Your task to perform on an android device: Open the web browser Image 0: 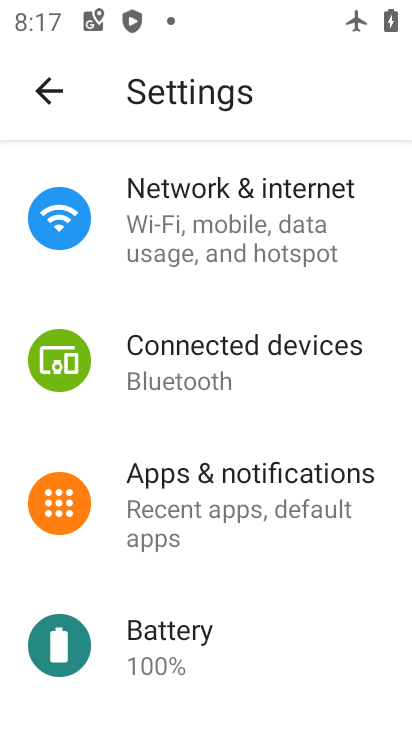
Step 0: press home button
Your task to perform on an android device: Open the web browser Image 1: 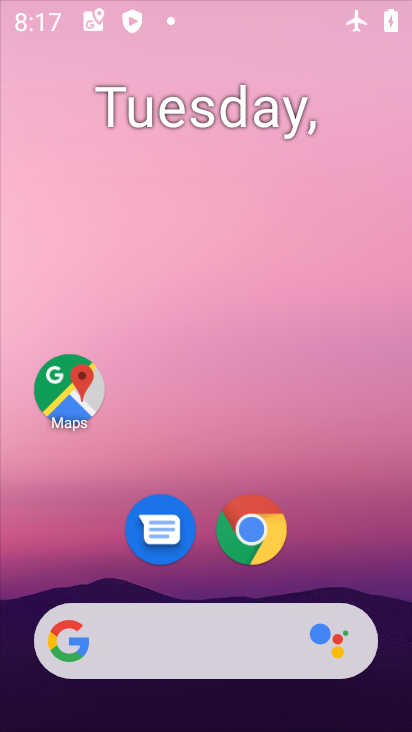
Step 1: drag from (180, 705) to (260, 0)
Your task to perform on an android device: Open the web browser Image 2: 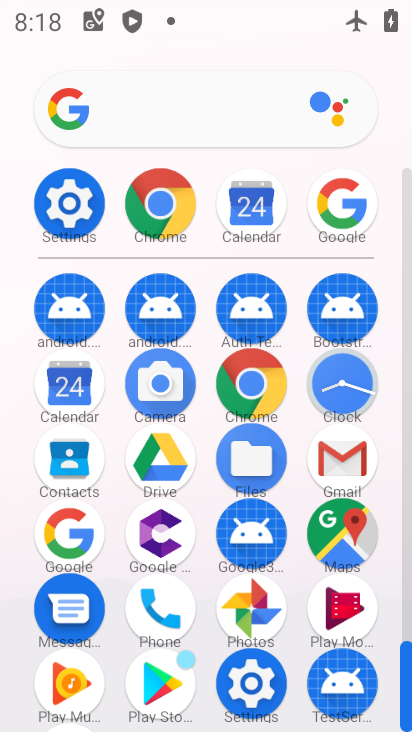
Step 2: click (176, 208)
Your task to perform on an android device: Open the web browser Image 3: 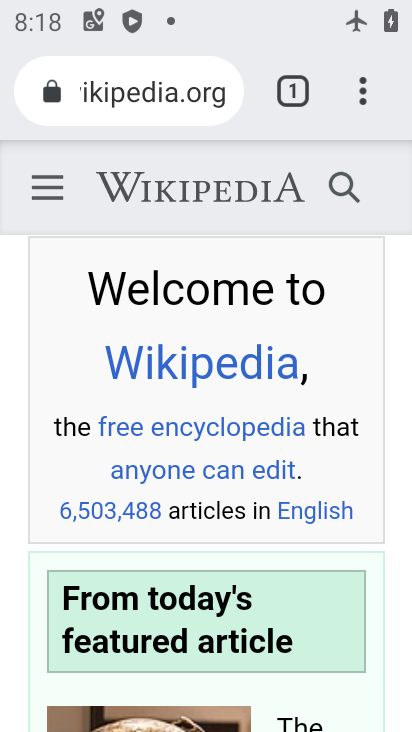
Step 3: task complete